Your task to perform on an android device: turn on javascript in the chrome app Image 0: 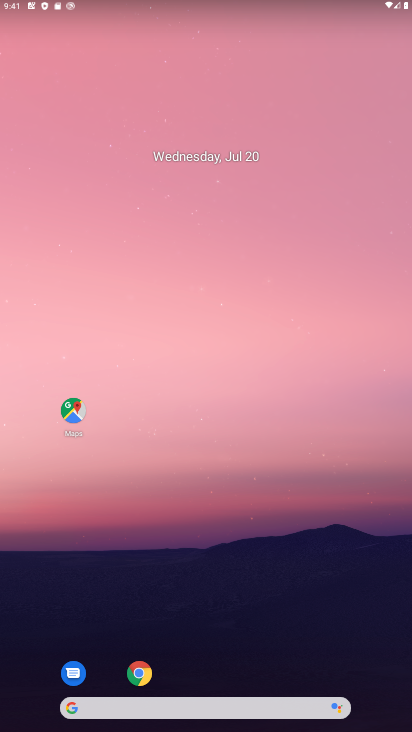
Step 0: click (139, 674)
Your task to perform on an android device: turn on javascript in the chrome app Image 1: 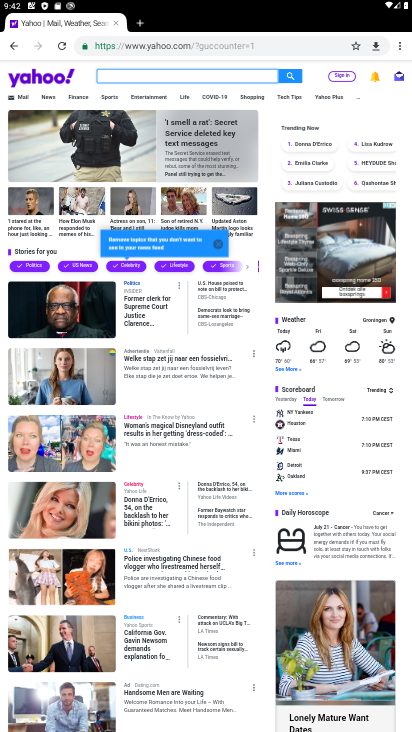
Step 1: click (400, 46)
Your task to perform on an android device: turn on javascript in the chrome app Image 2: 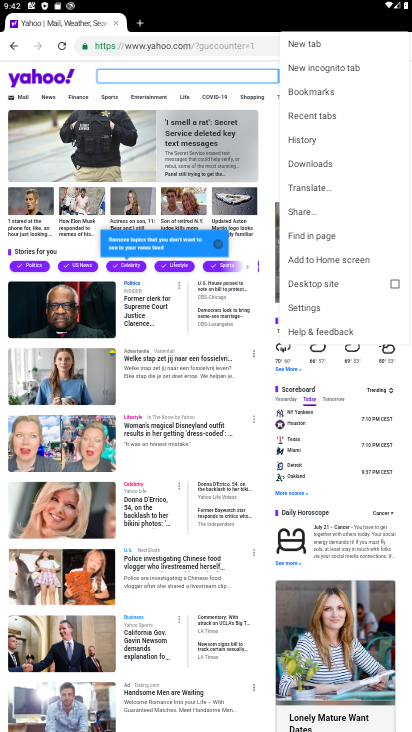
Step 2: click (309, 306)
Your task to perform on an android device: turn on javascript in the chrome app Image 3: 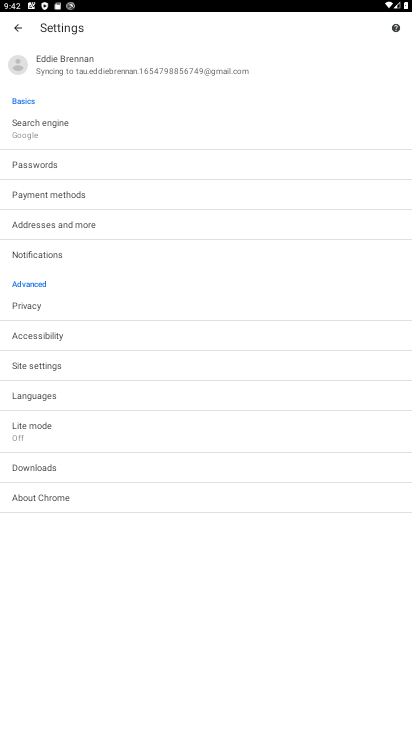
Step 3: click (39, 366)
Your task to perform on an android device: turn on javascript in the chrome app Image 4: 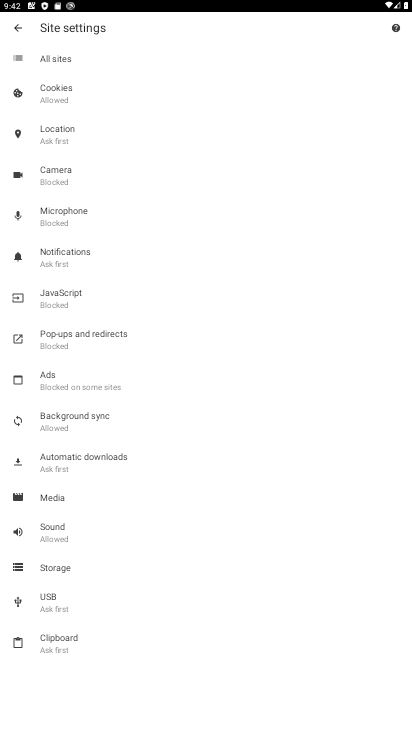
Step 4: click (56, 300)
Your task to perform on an android device: turn on javascript in the chrome app Image 5: 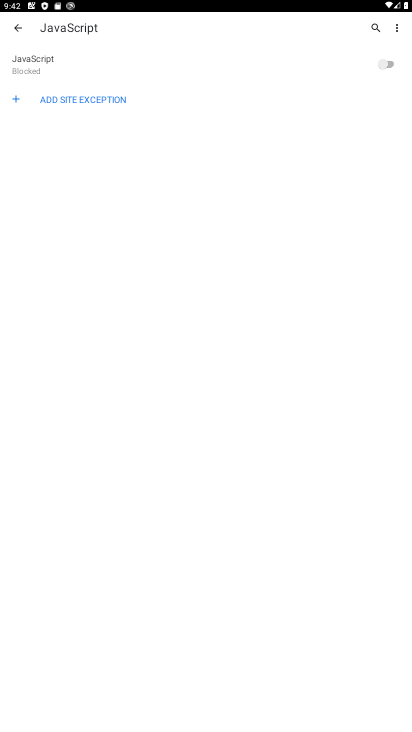
Step 5: click (384, 59)
Your task to perform on an android device: turn on javascript in the chrome app Image 6: 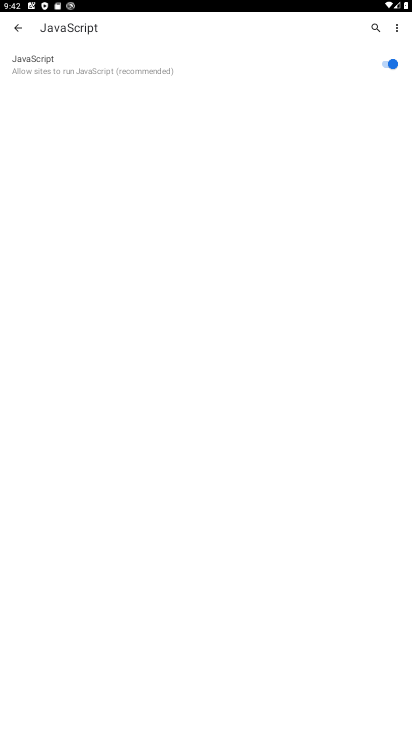
Step 6: task complete